Your task to perform on an android device: Show me popular videos on Youtube Image 0: 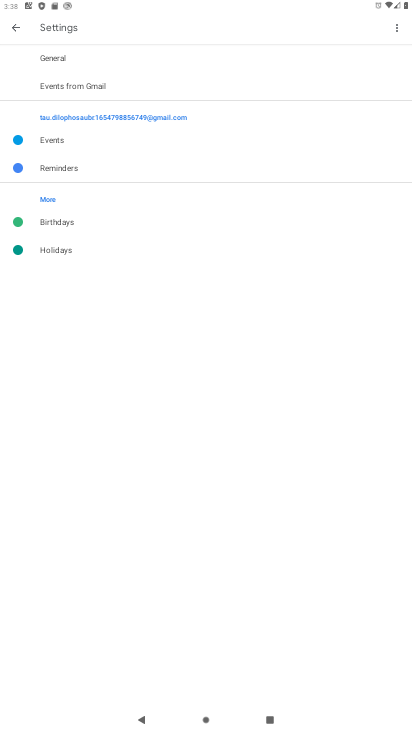
Step 0: press home button
Your task to perform on an android device: Show me popular videos on Youtube Image 1: 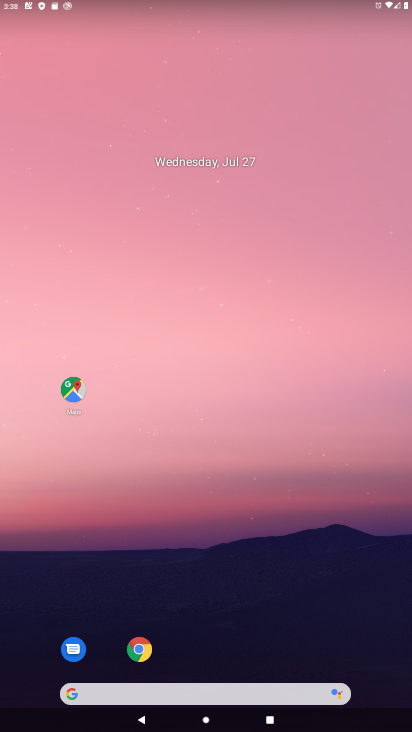
Step 1: drag from (373, 675) to (326, 189)
Your task to perform on an android device: Show me popular videos on Youtube Image 2: 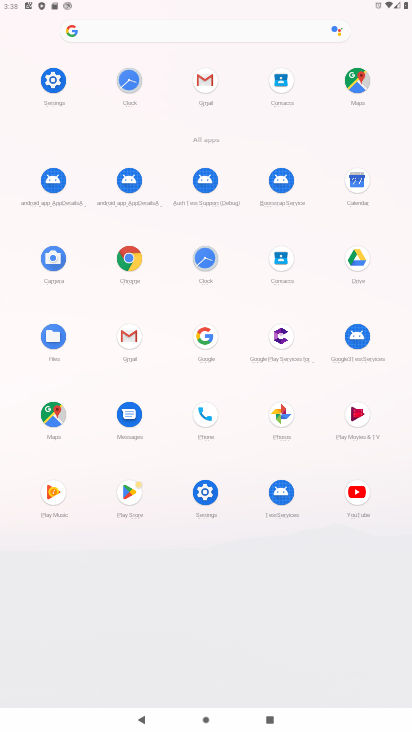
Step 2: click (356, 491)
Your task to perform on an android device: Show me popular videos on Youtube Image 3: 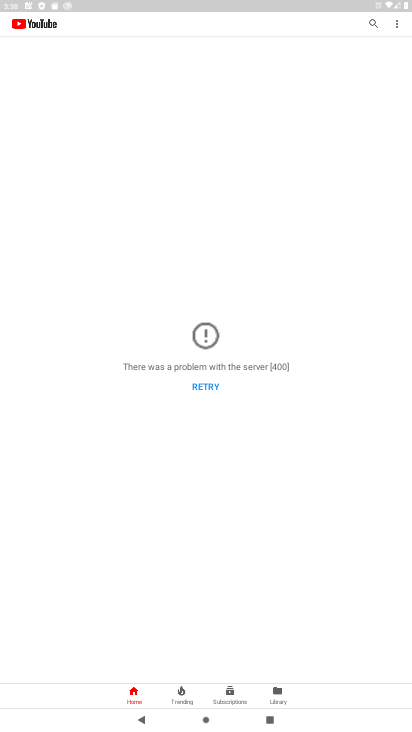
Step 3: click (176, 694)
Your task to perform on an android device: Show me popular videos on Youtube Image 4: 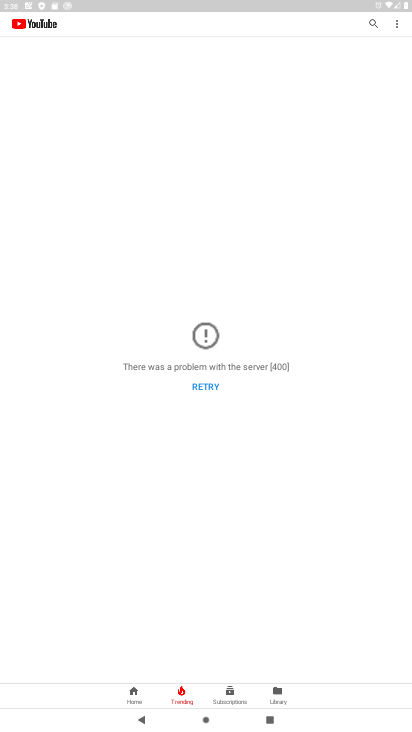
Step 4: click (201, 386)
Your task to perform on an android device: Show me popular videos on Youtube Image 5: 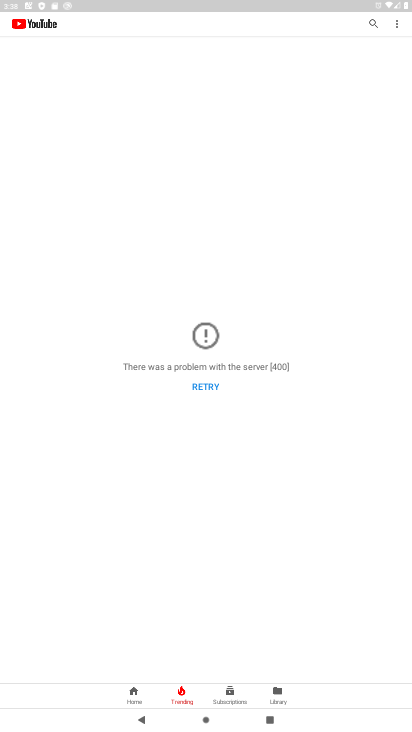
Step 5: task complete